Your task to perform on an android device: Open the calendar app, open the side menu, and click the "Day" option Image 0: 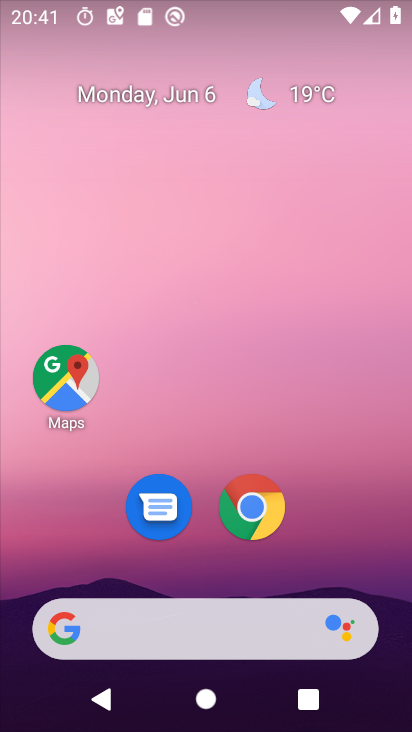
Step 0: press home button
Your task to perform on an android device: Open the calendar app, open the side menu, and click the "Day" option Image 1: 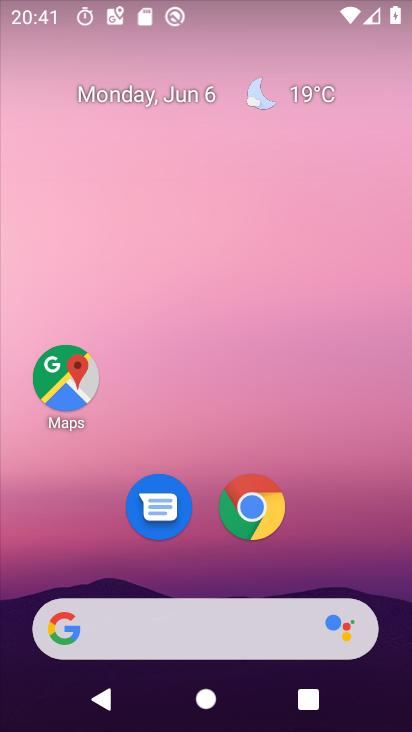
Step 1: drag from (369, 592) to (278, 98)
Your task to perform on an android device: Open the calendar app, open the side menu, and click the "Day" option Image 2: 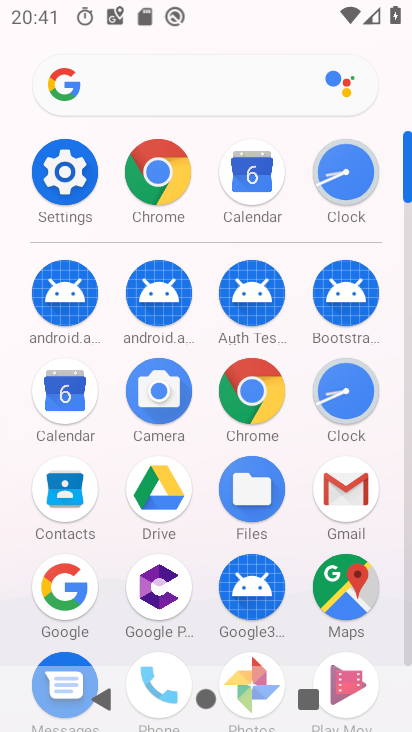
Step 2: click (251, 194)
Your task to perform on an android device: Open the calendar app, open the side menu, and click the "Day" option Image 3: 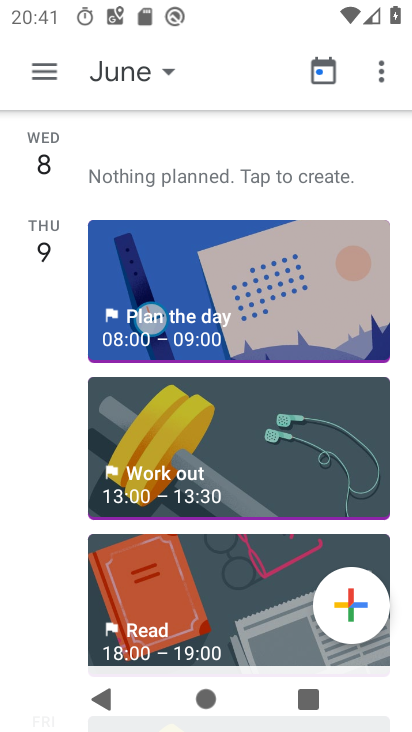
Step 3: click (52, 73)
Your task to perform on an android device: Open the calendar app, open the side menu, and click the "Day" option Image 4: 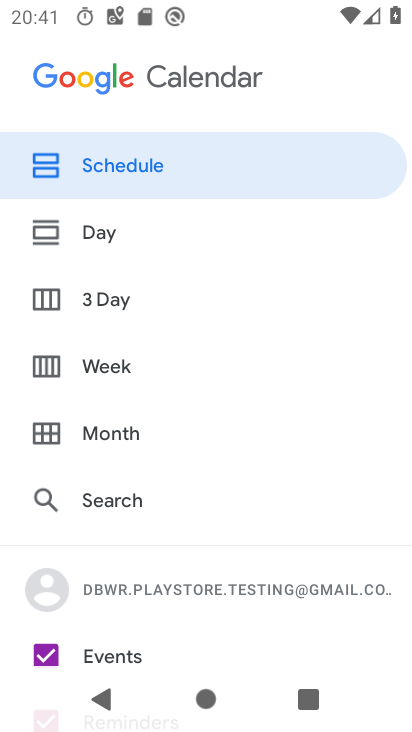
Step 4: click (95, 239)
Your task to perform on an android device: Open the calendar app, open the side menu, and click the "Day" option Image 5: 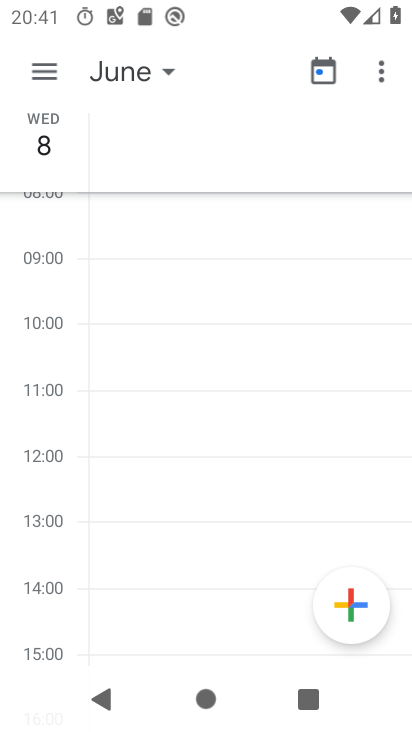
Step 5: task complete